Your task to perform on an android device: delete browsing data in the chrome app Image 0: 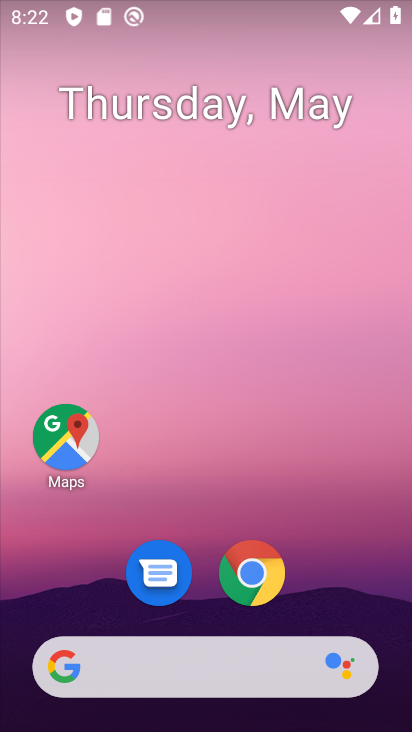
Step 0: drag from (303, 503) to (241, 0)
Your task to perform on an android device: delete browsing data in the chrome app Image 1: 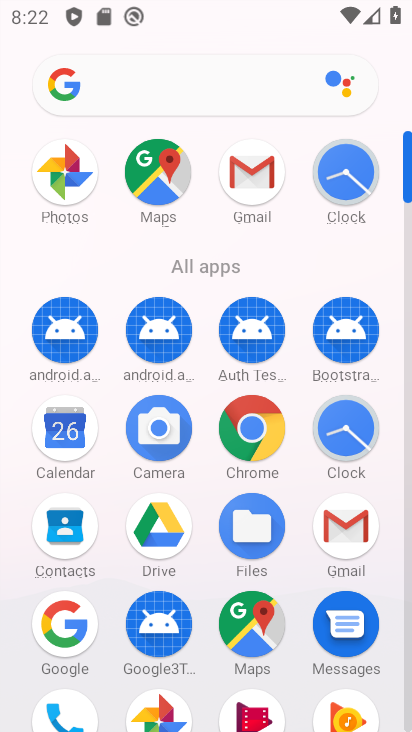
Step 1: drag from (15, 574) to (19, 225)
Your task to perform on an android device: delete browsing data in the chrome app Image 2: 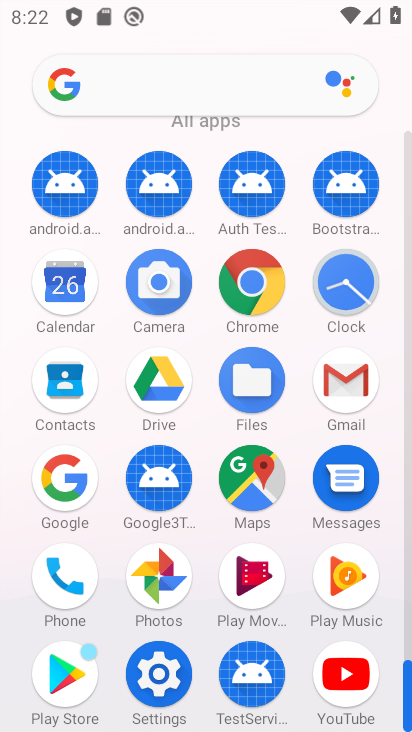
Step 2: click (247, 277)
Your task to perform on an android device: delete browsing data in the chrome app Image 3: 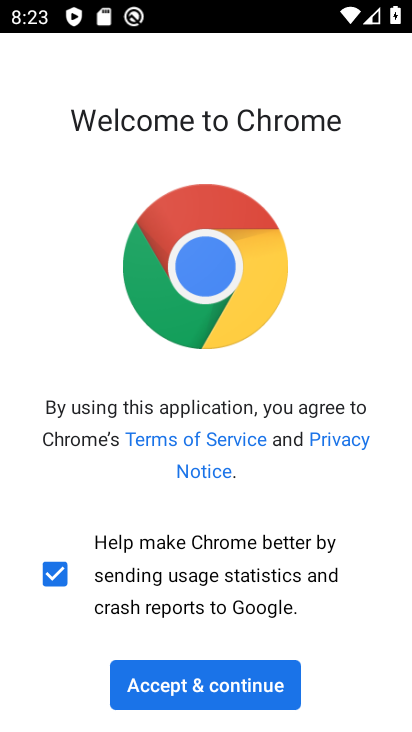
Step 3: click (230, 683)
Your task to perform on an android device: delete browsing data in the chrome app Image 4: 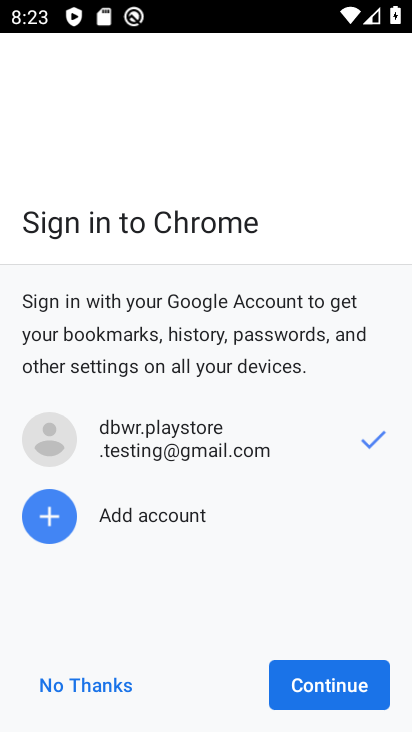
Step 4: click (338, 686)
Your task to perform on an android device: delete browsing data in the chrome app Image 5: 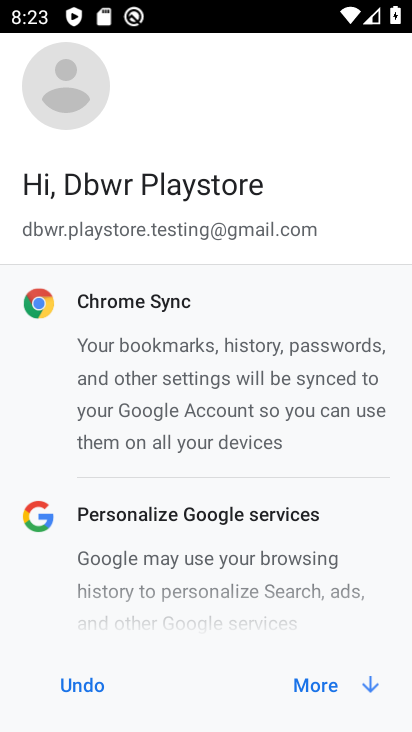
Step 5: click (313, 682)
Your task to perform on an android device: delete browsing data in the chrome app Image 6: 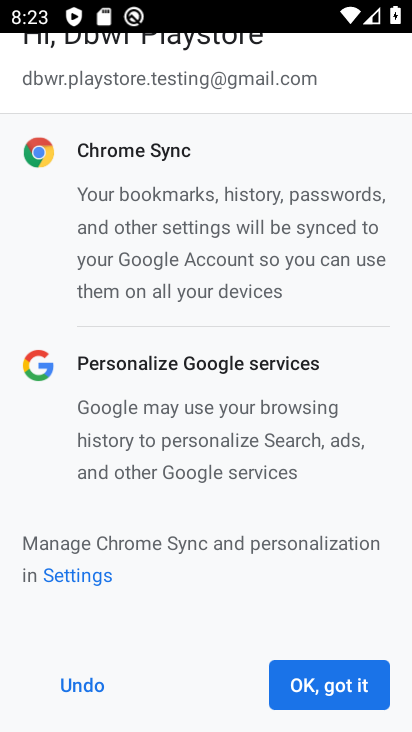
Step 6: click (325, 676)
Your task to perform on an android device: delete browsing data in the chrome app Image 7: 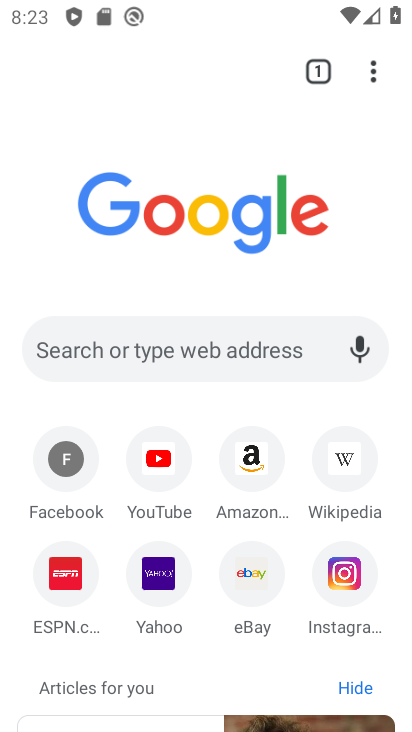
Step 7: drag from (376, 73) to (152, 391)
Your task to perform on an android device: delete browsing data in the chrome app Image 8: 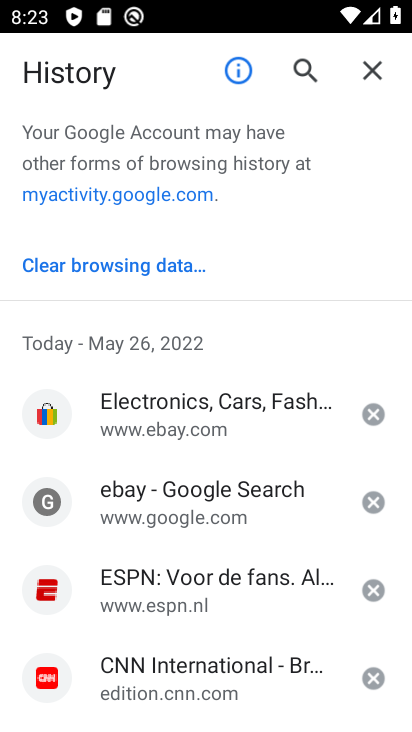
Step 8: click (148, 274)
Your task to perform on an android device: delete browsing data in the chrome app Image 9: 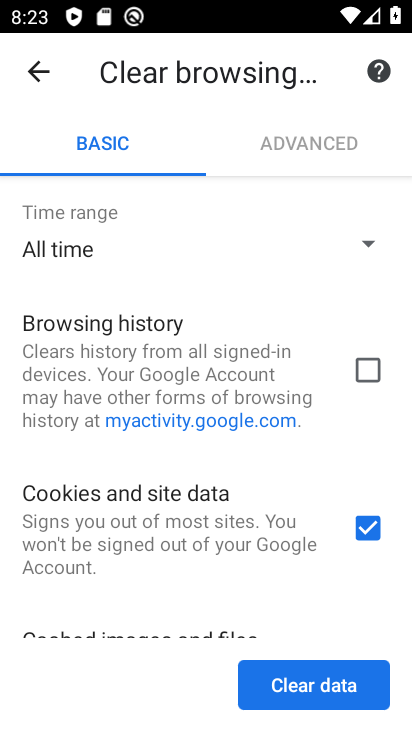
Step 9: click (331, 682)
Your task to perform on an android device: delete browsing data in the chrome app Image 10: 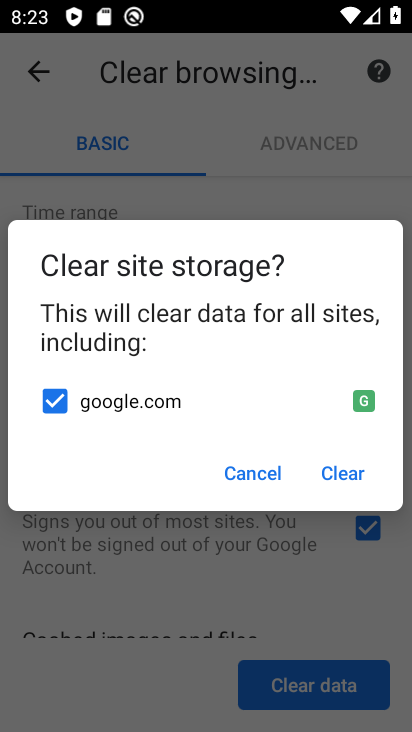
Step 10: click (339, 469)
Your task to perform on an android device: delete browsing data in the chrome app Image 11: 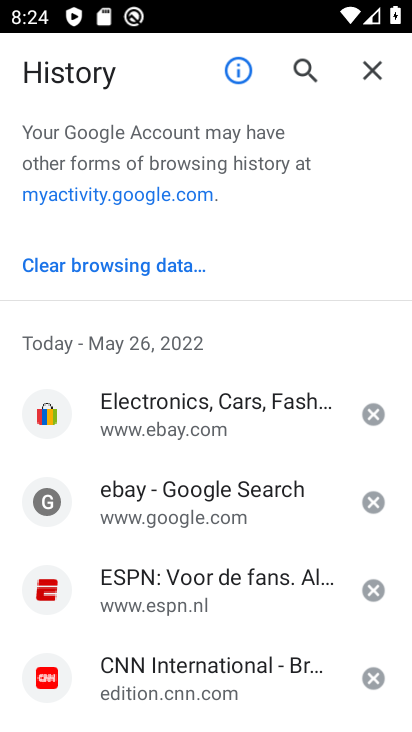
Step 11: task complete